Your task to perform on an android device: toggle javascript in the chrome app Image 0: 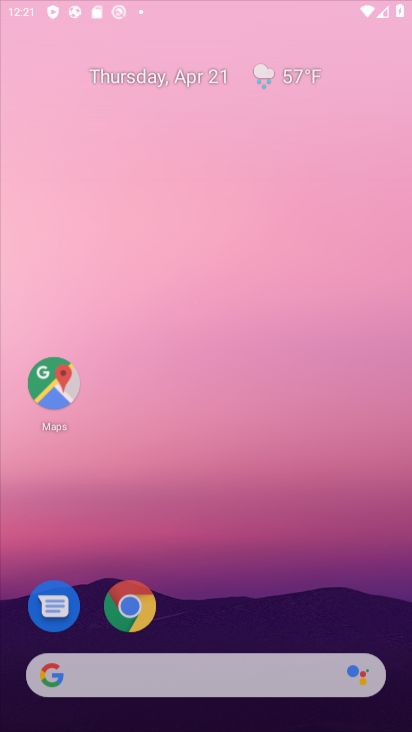
Step 0: click (132, 162)
Your task to perform on an android device: toggle javascript in the chrome app Image 1: 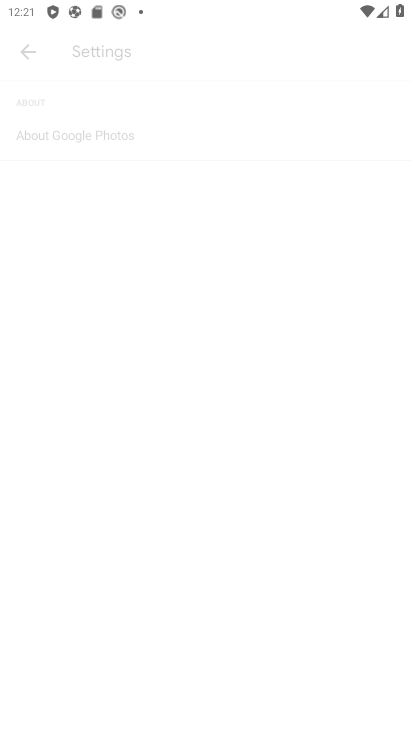
Step 1: drag from (236, 588) to (141, 172)
Your task to perform on an android device: toggle javascript in the chrome app Image 2: 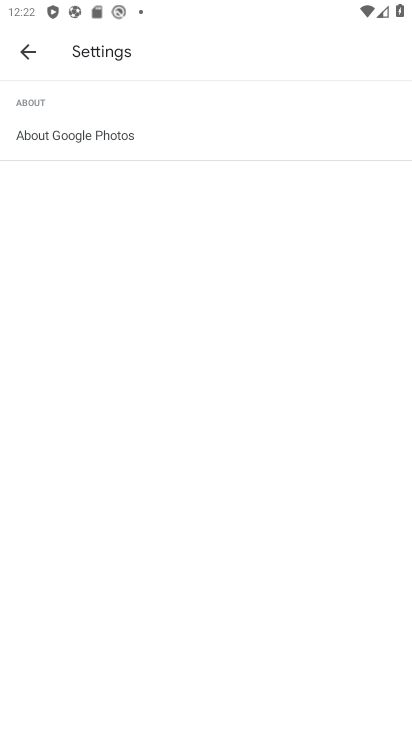
Step 2: press back button
Your task to perform on an android device: toggle javascript in the chrome app Image 3: 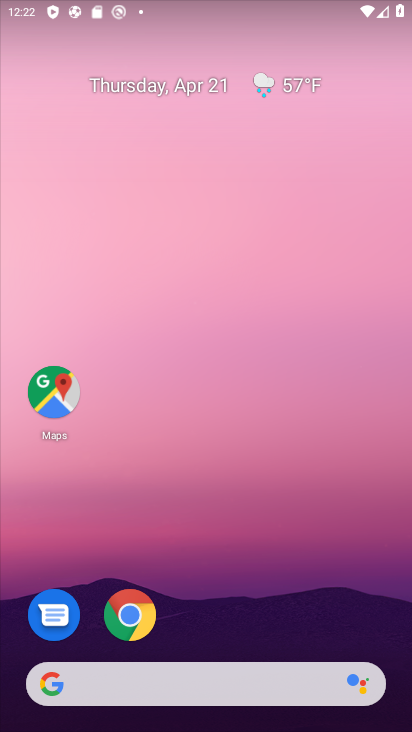
Step 3: click (133, 610)
Your task to perform on an android device: toggle javascript in the chrome app Image 4: 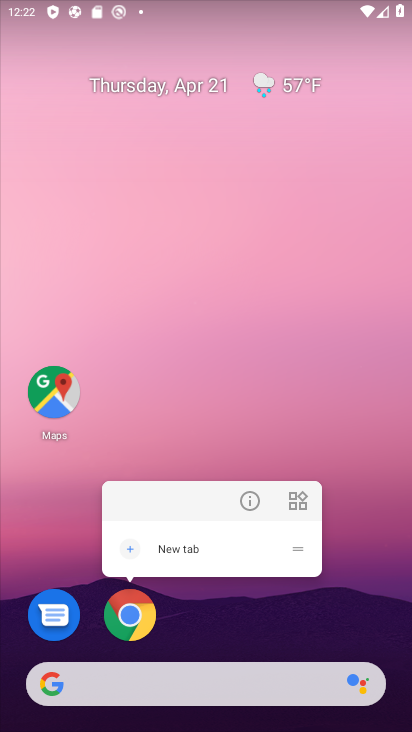
Step 4: click (133, 614)
Your task to perform on an android device: toggle javascript in the chrome app Image 5: 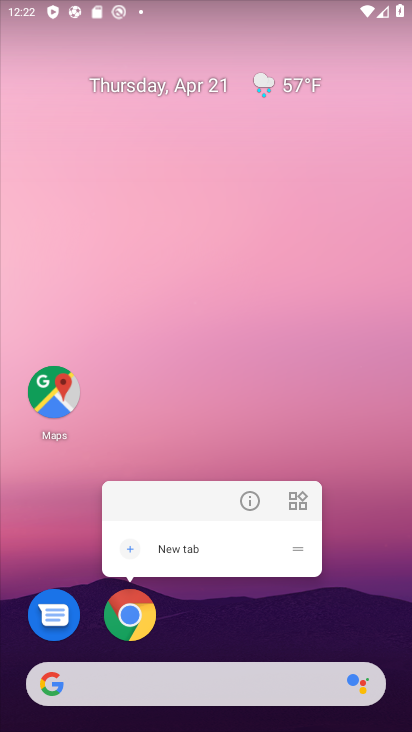
Step 5: click (137, 625)
Your task to perform on an android device: toggle javascript in the chrome app Image 6: 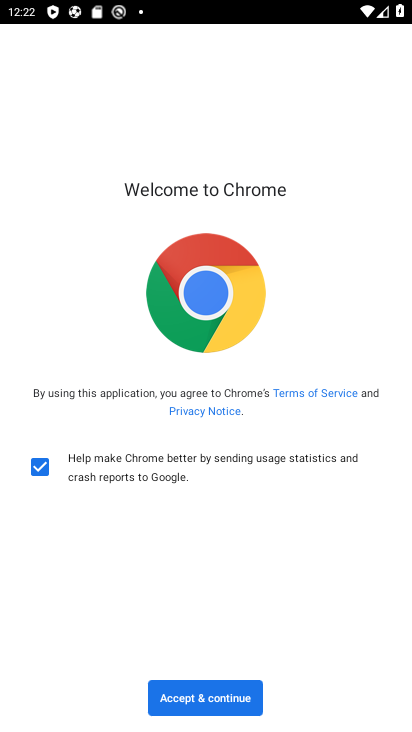
Step 6: click (185, 703)
Your task to perform on an android device: toggle javascript in the chrome app Image 7: 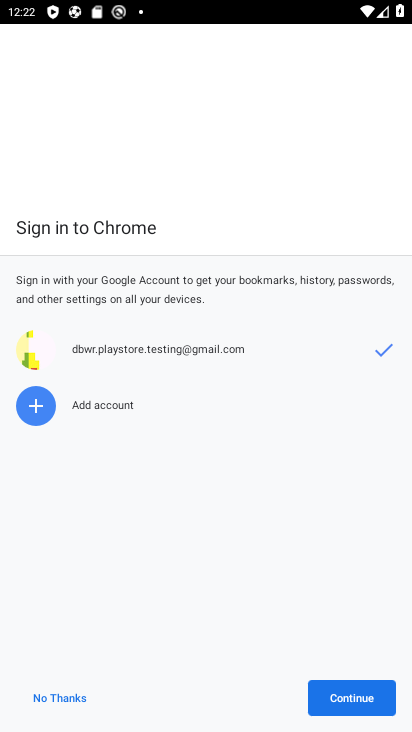
Step 7: click (341, 693)
Your task to perform on an android device: toggle javascript in the chrome app Image 8: 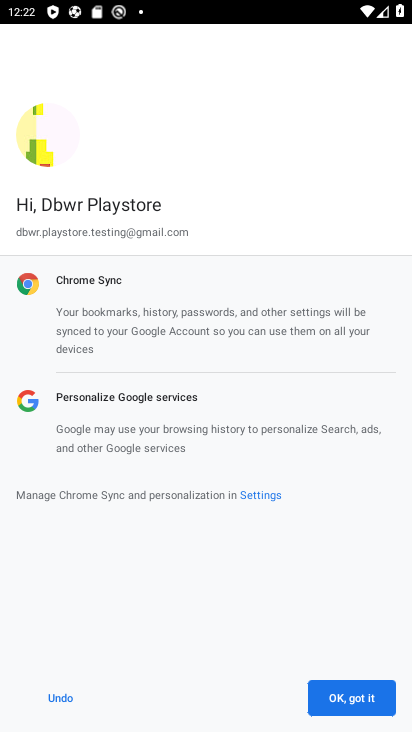
Step 8: click (336, 694)
Your task to perform on an android device: toggle javascript in the chrome app Image 9: 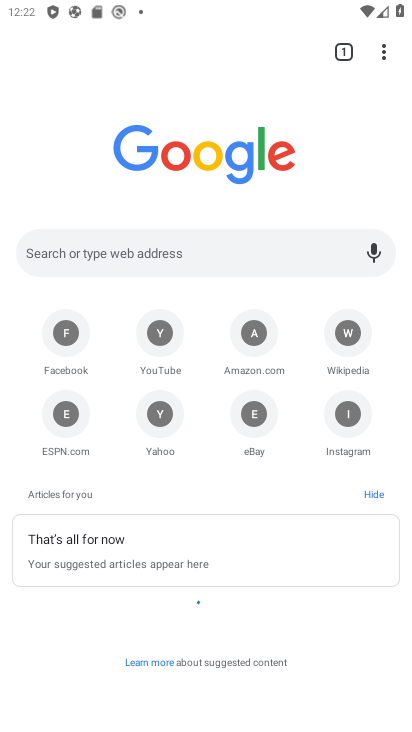
Step 9: click (383, 51)
Your task to perform on an android device: toggle javascript in the chrome app Image 10: 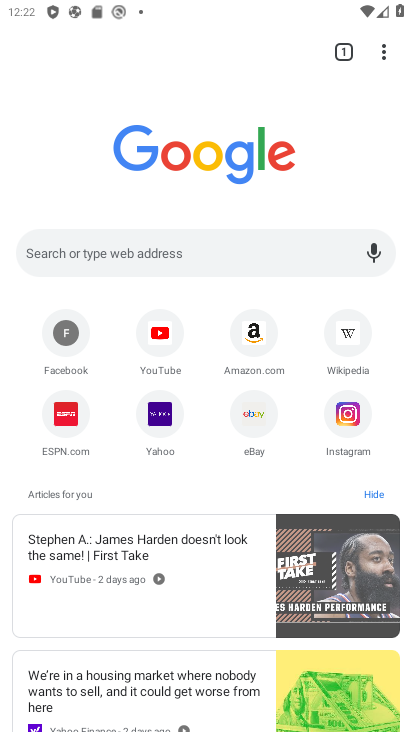
Step 10: click (383, 51)
Your task to perform on an android device: toggle javascript in the chrome app Image 11: 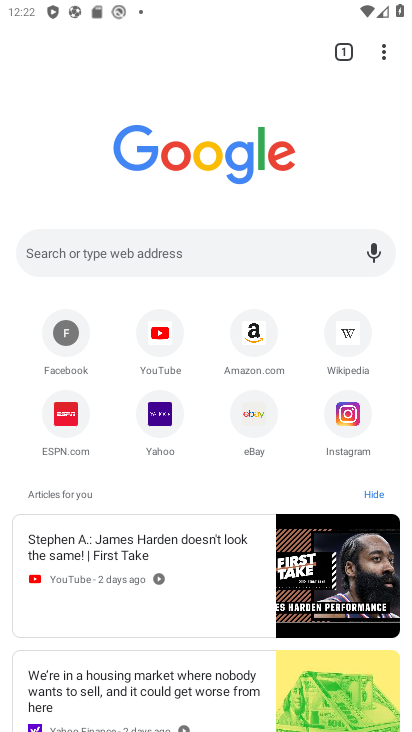
Step 11: click (383, 46)
Your task to perform on an android device: toggle javascript in the chrome app Image 12: 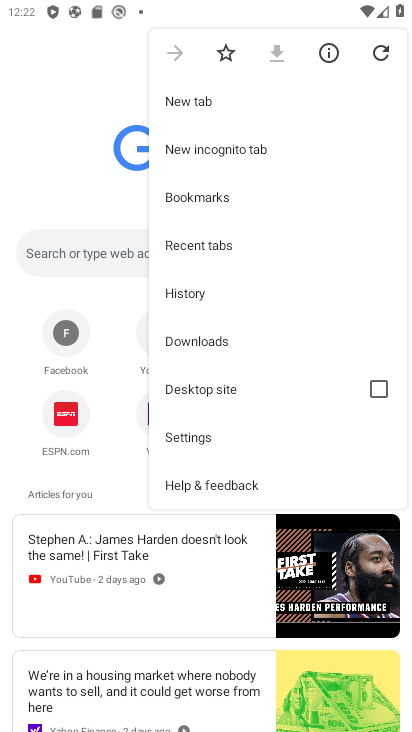
Step 12: click (196, 443)
Your task to perform on an android device: toggle javascript in the chrome app Image 13: 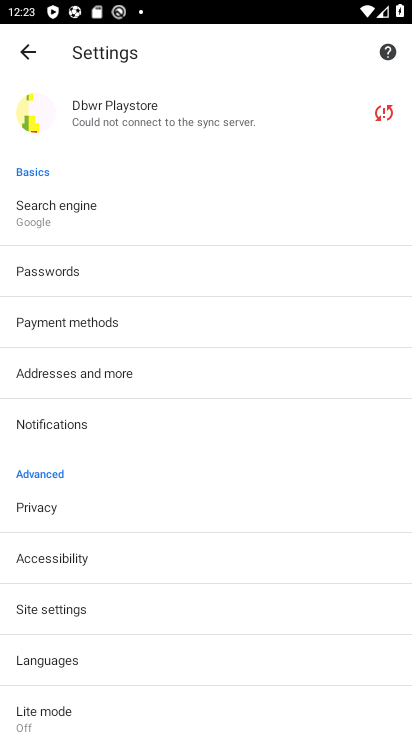
Step 13: click (33, 611)
Your task to perform on an android device: toggle javascript in the chrome app Image 14: 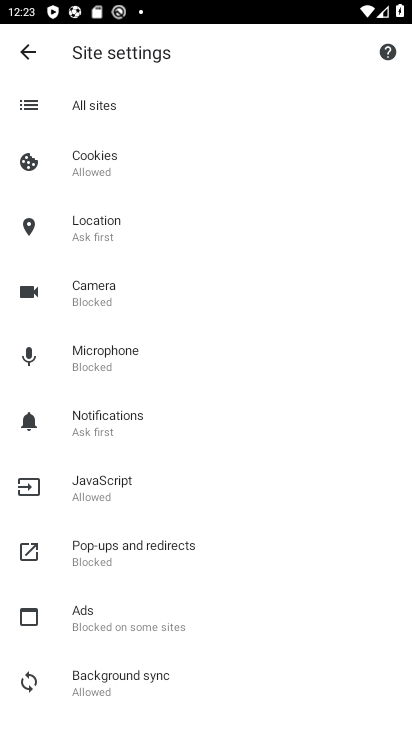
Step 14: click (86, 482)
Your task to perform on an android device: toggle javascript in the chrome app Image 15: 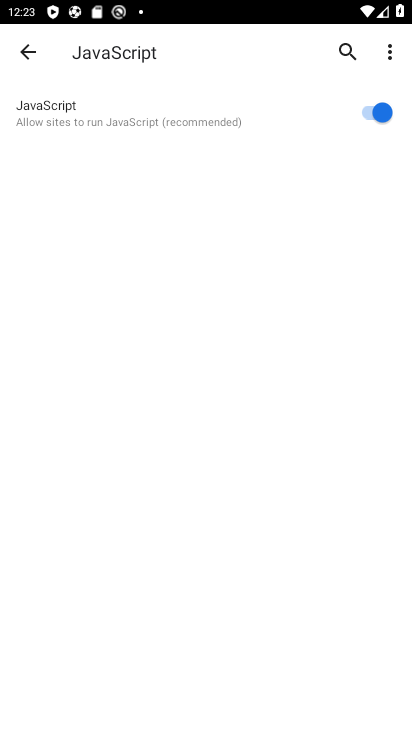
Step 15: click (366, 113)
Your task to perform on an android device: toggle javascript in the chrome app Image 16: 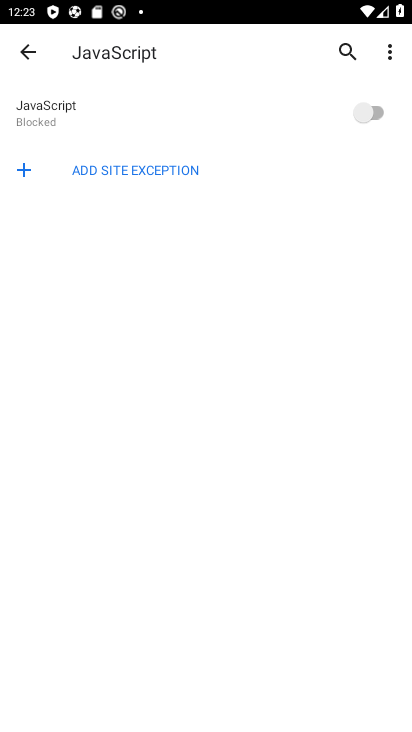
Step 16: task complete